Your task to perform on an android device: Go to sound settings Image 0: 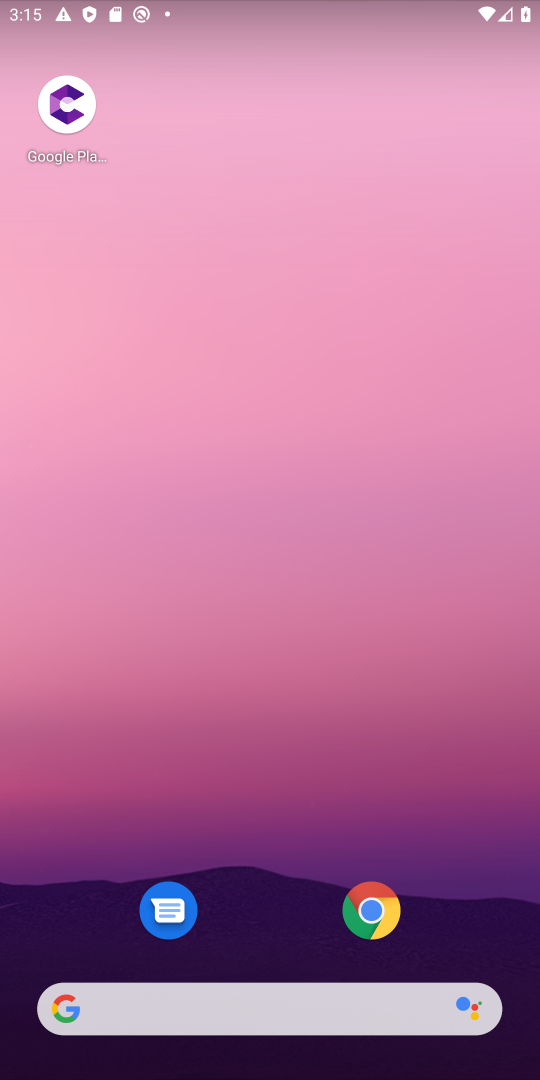
Step 0: drag from (476, 915) to (295, 50)
Your task to perform on an android device: Go to sound settings Image 1: 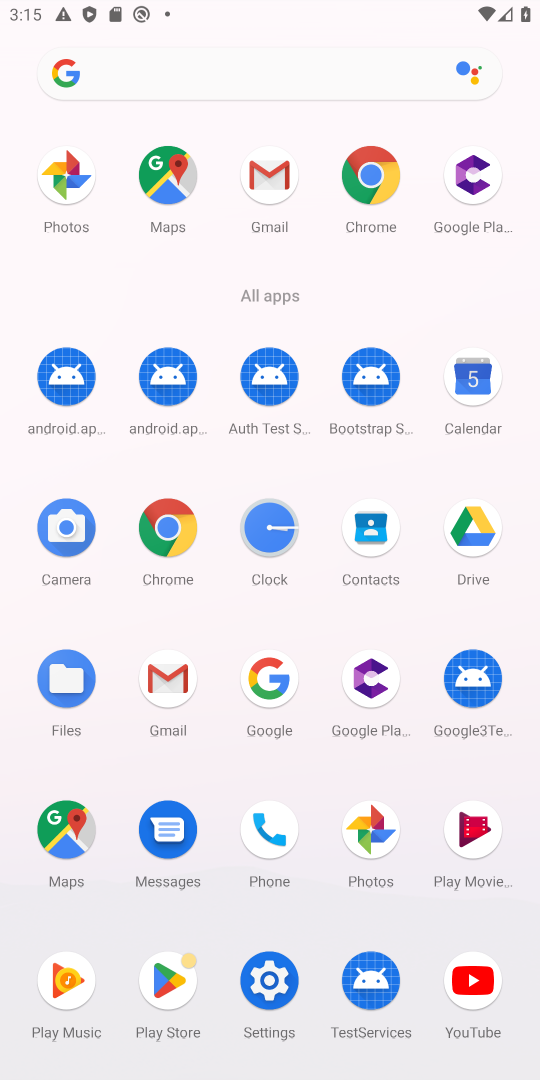
Step 1: click (287, 974)
Your task to perform on an android device: Go to sound settings Image 2: 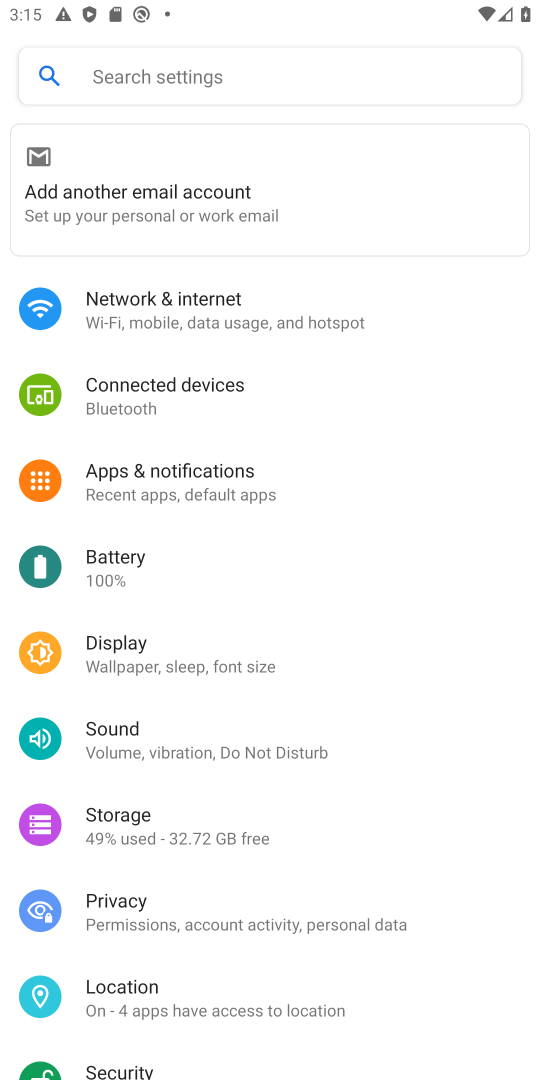
Step 2: click (277, 764)
Your task to perform on an android device: Go to sound settings Image 3: 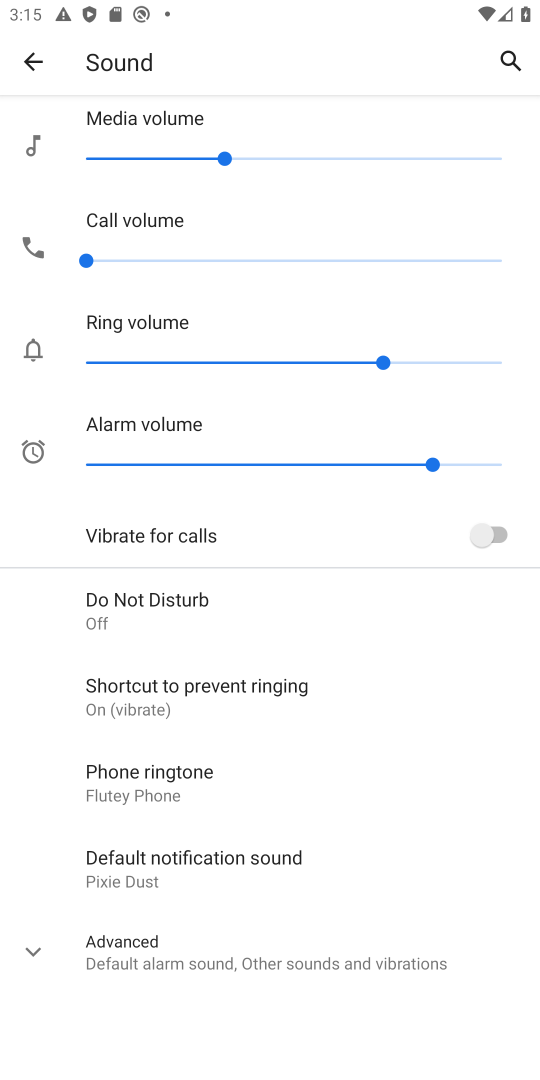
Step 3: task complete